Your task to perform on an android device: turn on bluetooth scan Image 0: 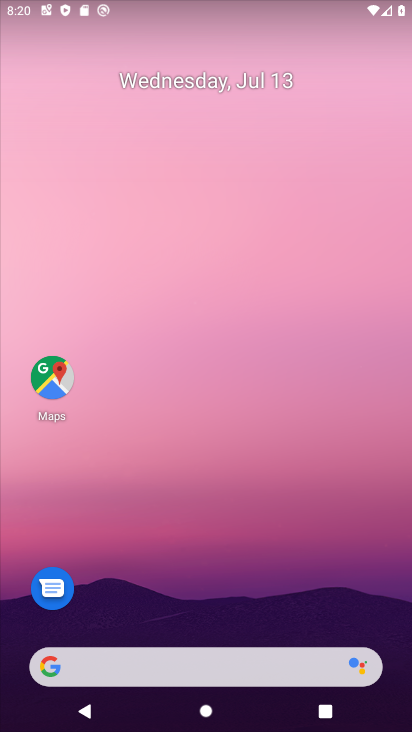
Step 0: drag from (141, 651) to (246, 148)
Your task to perform on an android device: turn on bluetooth scan Image 1: 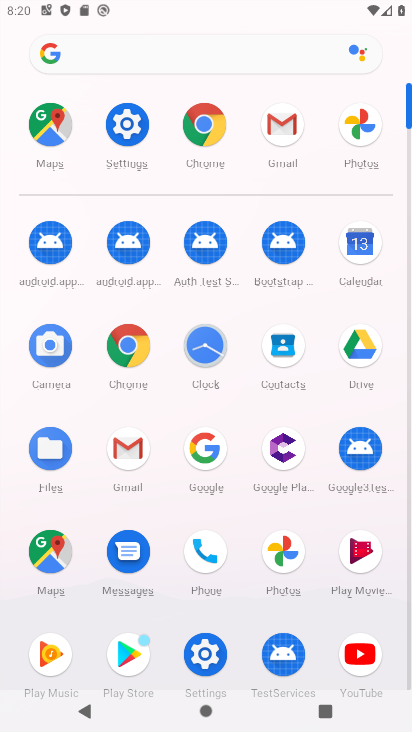
Step 1: click (121, 114)
Your task to perform on an android device: turn on bluetooth scan Image 2: 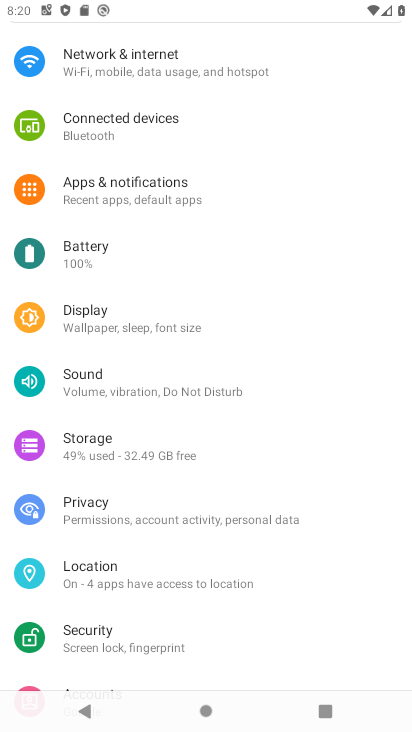
Step 2: click (125, 568)
Your task to perform on an android device: turn on bluetooth scan Image 3: 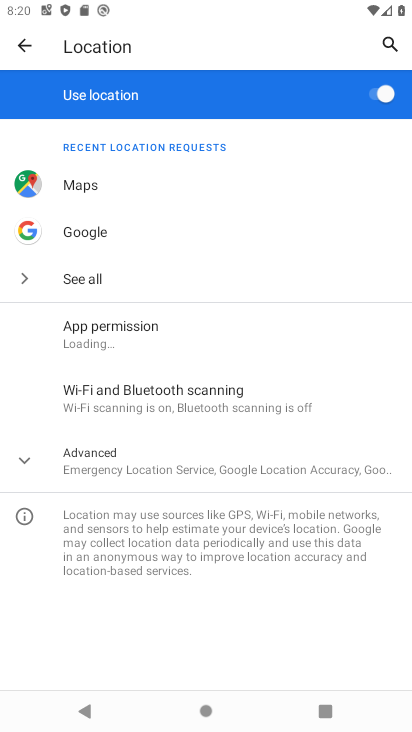
Step 3: click (225, 404)
Your task to perform on an android device: turn on bluetooth scan Image 4: 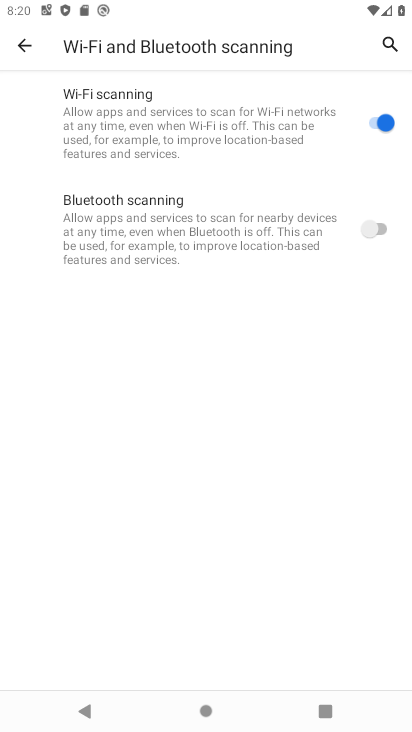
Step 4: click (382, 228)
Your task to perform on an android device: turn on bluetooth scan Image 5: 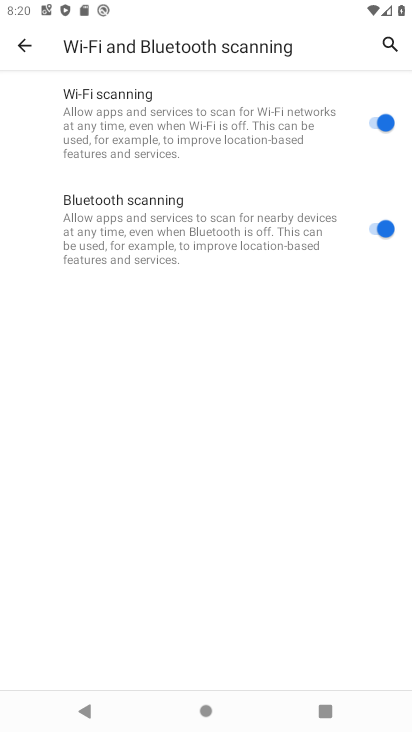
Step 5: task complete